Your task to perform on an android device: Open eBay Image 0: 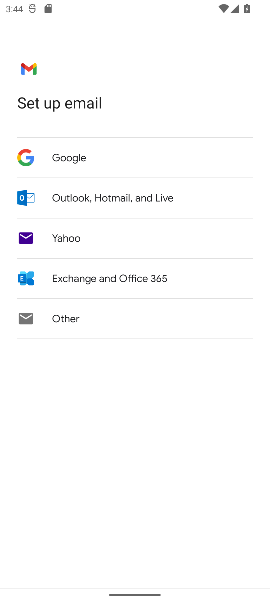
Step 0: press home button
Your task to perform on an android device: Open eBay Image 1: 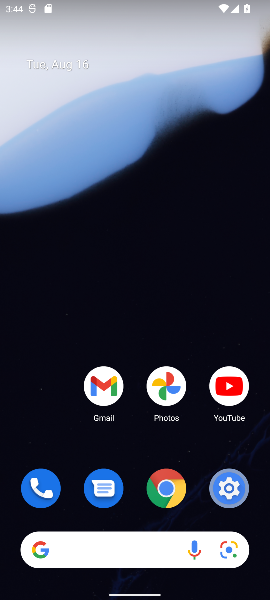
Step 1: task complete